Your task to perform on an android device: Go to notification settings Image 0: 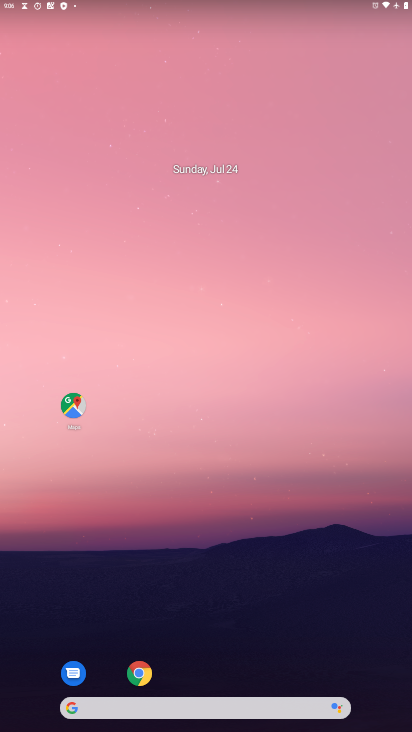
Step 0: drag from (192, 634) to (235, 196)
Your task to perform on an android device: Go to notification settings Image 1: 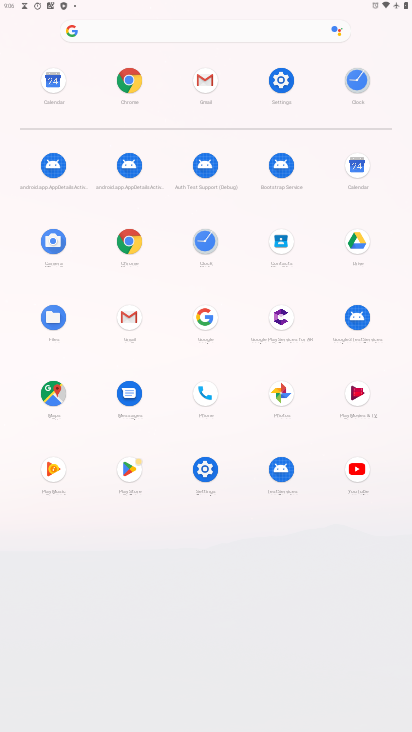
Step 1: click (281, 70)
Your task to perform on an android device: Go to notification settings Image 2: 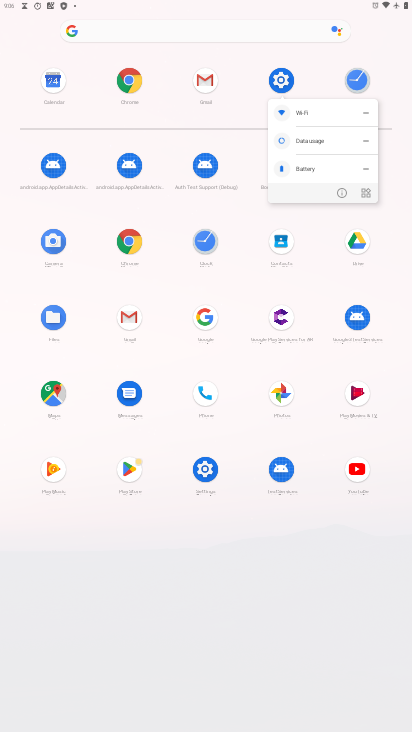
Step 2: click (337, 196)
Your task to perform on an android device: Go to notification settings Image 3: 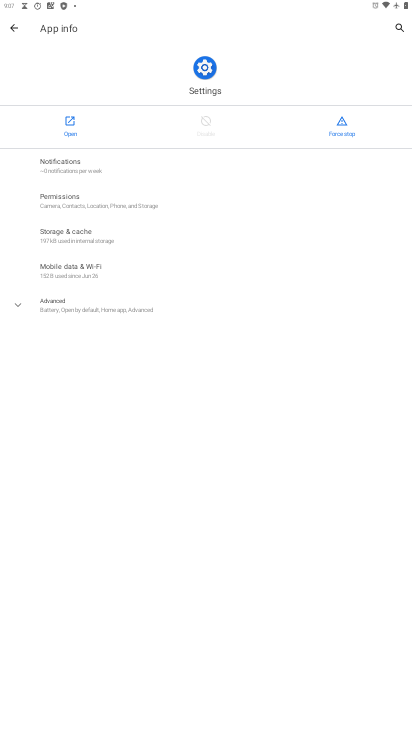
Step 3: click (64, 121)
Your task to perform on an android device: Go to notification settings Image 4: 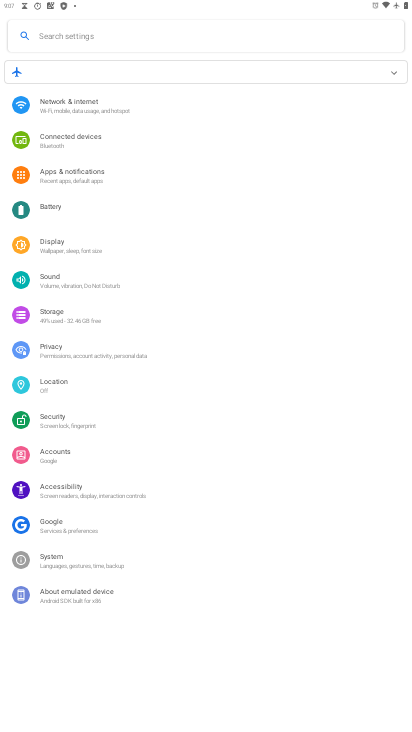
Step 4: drag from (174, 569) to (256, 170)
Your task to perform on an android device: Go to notification settings Image 5: 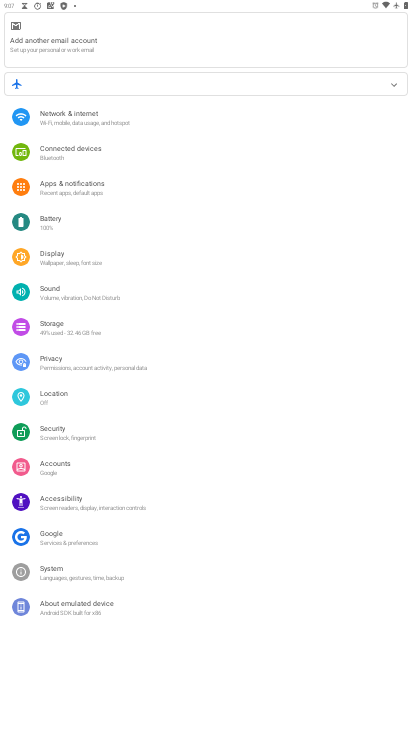
Step 5: drag from (145, 210) to (134, 628)
Your task to perform on an android device: Go to notification settings Image 6: 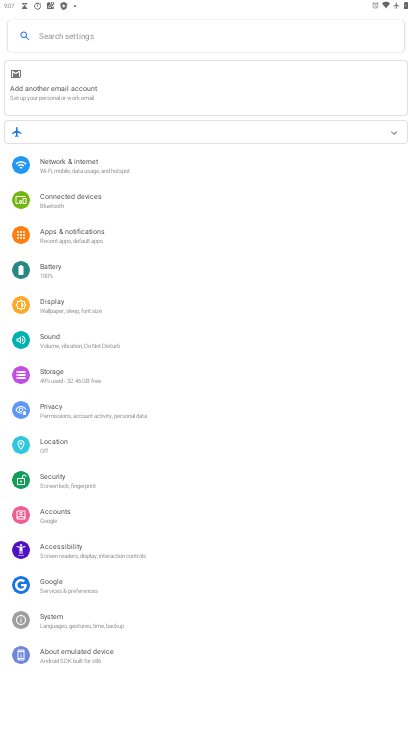
Step 6: click (79, 230)
Your task to perform on an android device: Go to notification settings Image 7: 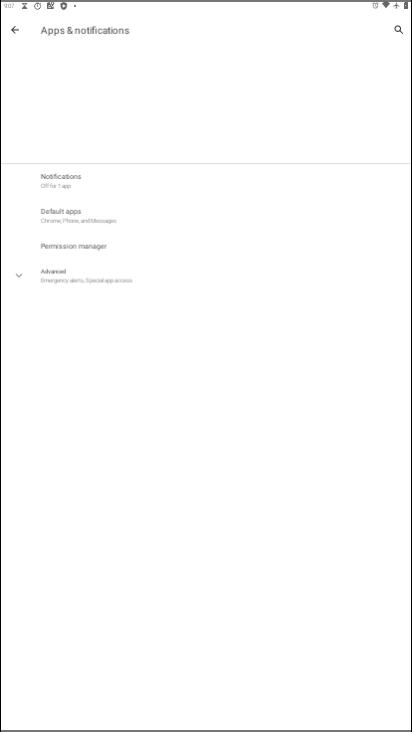
Step 7: drag from (155, 511) to (205, 276)
Your task to perform on an android device: Go to notification settings Image 8: 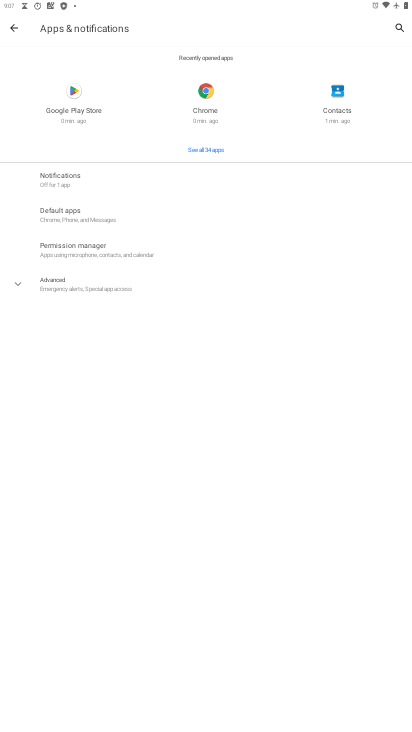
Step 8: click (91, 167)
Your task to perform on an android device: Go to notification settings Image 9: 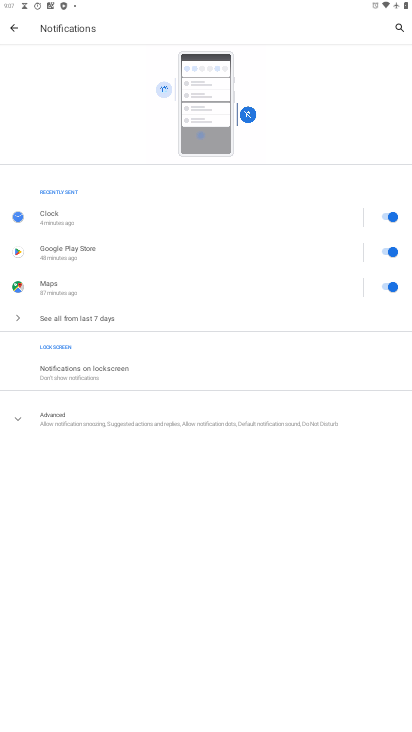
Step 9: drag from (171, 428) to (197, 341)
Your task to perform on an android device: Go to notification settings Image 10: 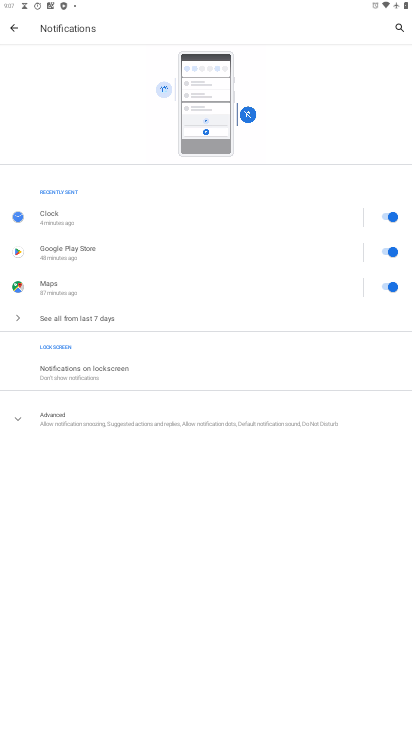
Step 10: click (76, 412)
Your task to perform on an android device: Go to notification settings Image 11: 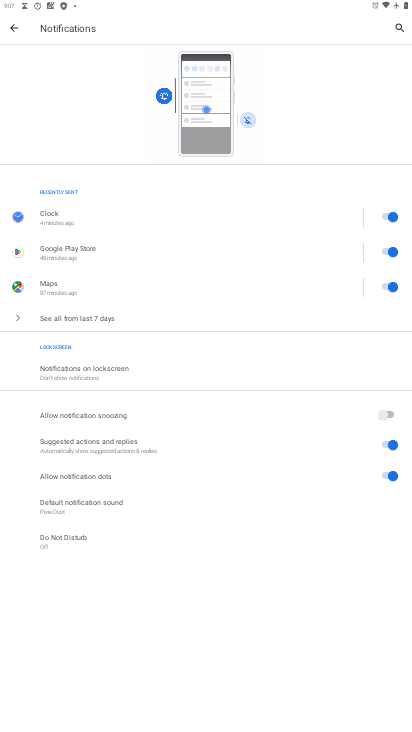
Step 11: task complete